Your task to perform on an android device: Open Chrome and go to settings Image 0: 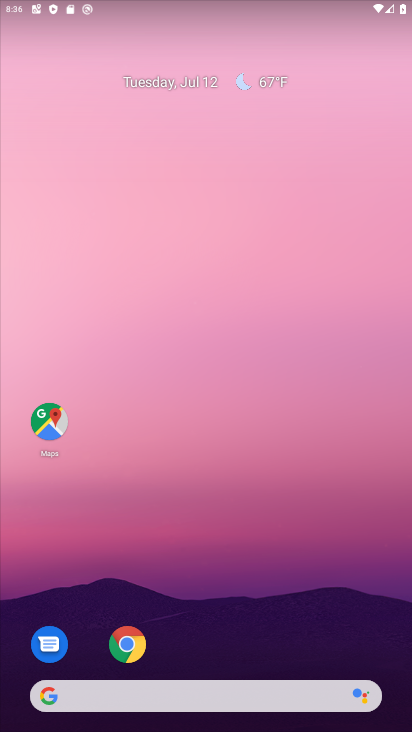
Step 0: click (130, 645)
Your task to perform on an android device: Open Chrome and go to settings Image 1: 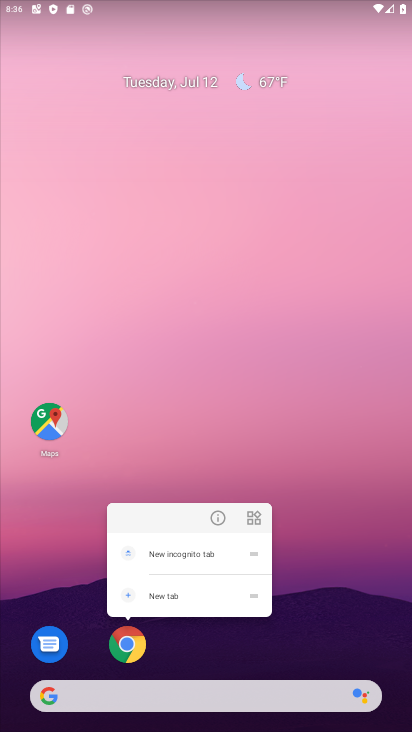
Step 1: click (219, 516)
Your task to perform on an android device: Open Chrome and go to settings Image 2: 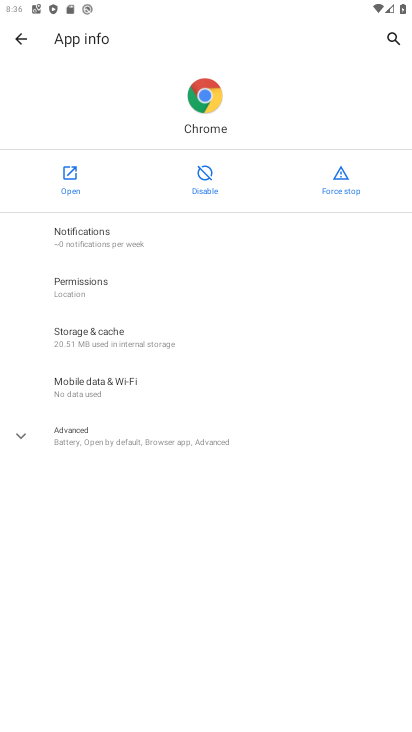
Step 2: click (67, 183)
Your task to perform on an android device: Open Chrome and go to settings Image 3: 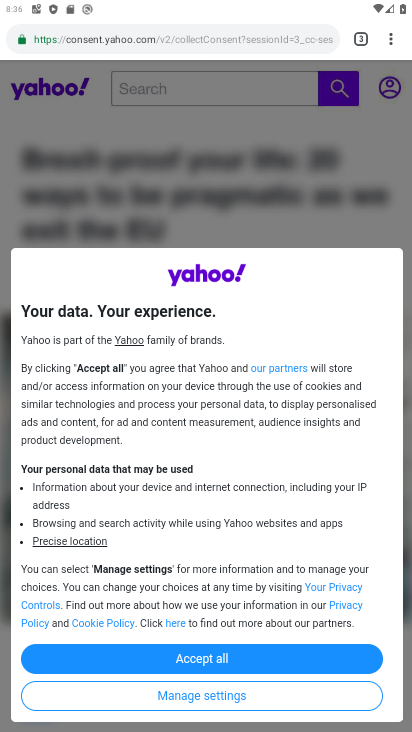
Step 3: drag from (179, 555) to (260, 94)
Your task to perform on an android device: Open Chrome and go to settings Image 4: 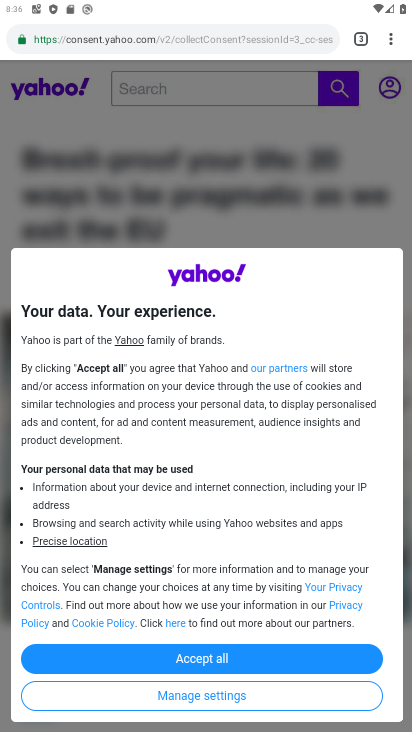
Step 4: click (388, 31)
Your task to perform on an android device: Open Chrome and go to settings Image 5: 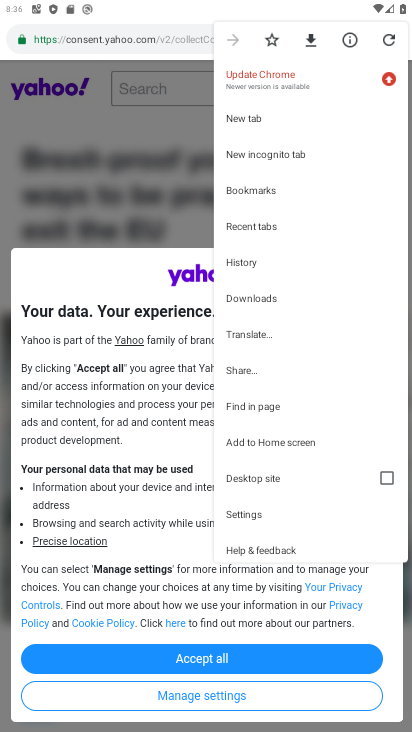
Step 5: click (258, 508)
Your task to perform on an android device: Open Chrome and go to settings Image 6: 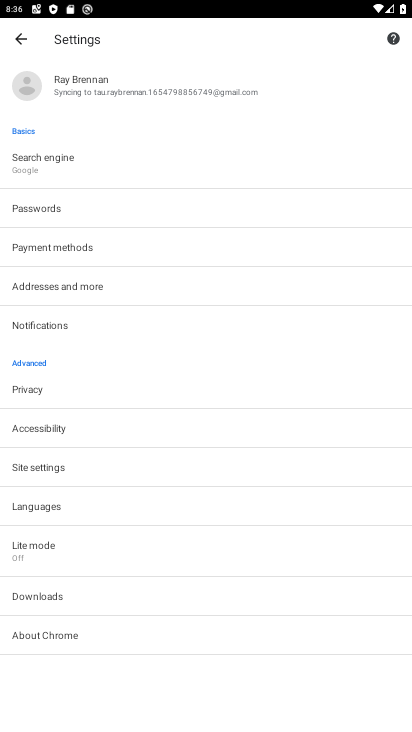
Step 6: task complete